Your task to perform on an android device: show emergency info Image 0: 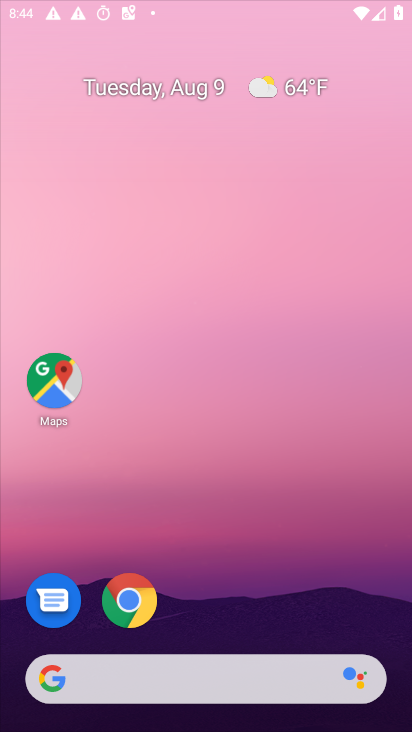
Step 0: press home button
Your task to perform on an android device: show emergency info Image 1: 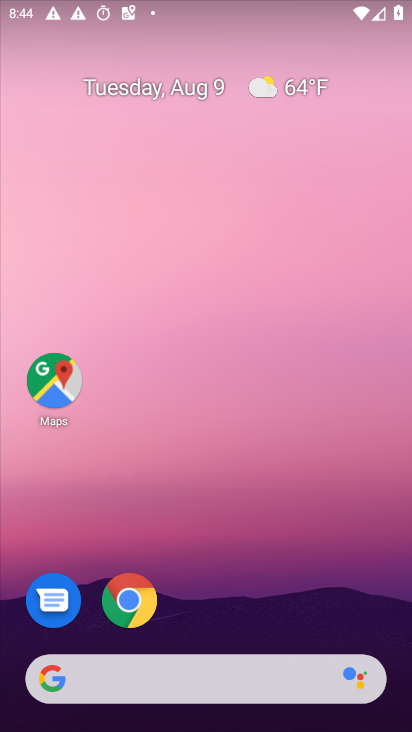
Step 1: drag from (250, 635) to (319, 138)
Your task to perform on an android device: show emergency info Image 2: 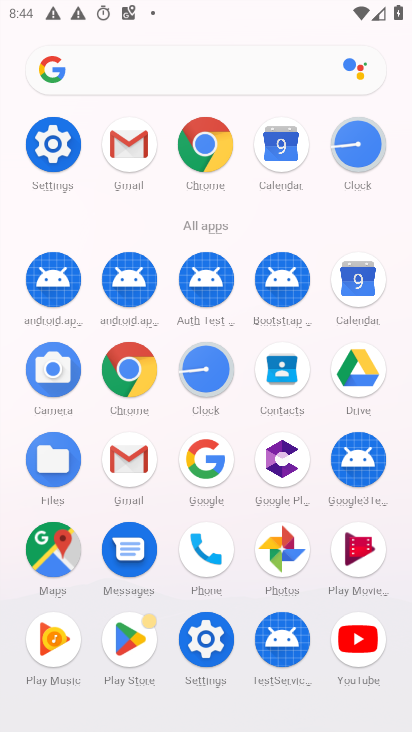
Step 2: click (54, 153)
Your task to perform on an android device: show emergency info Image 3: 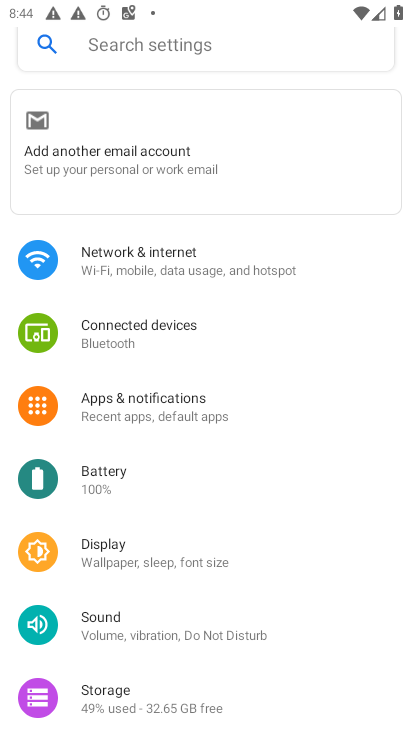
Step 3: drag from (274, 692) to (256, 128)
Your task to perform on an android device: show emergency info Image 4: 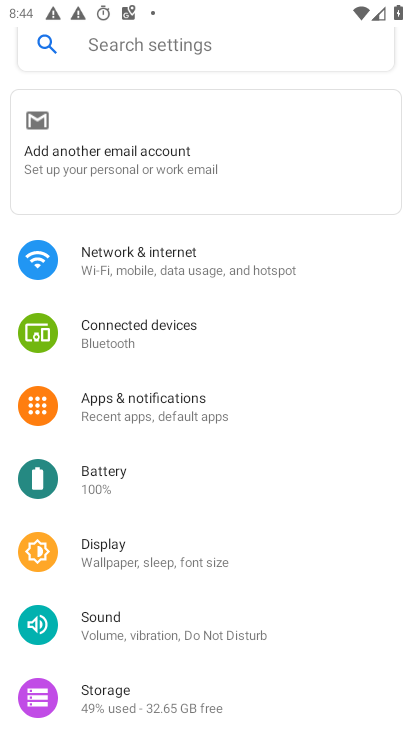
Step 4: drag from (326, 696) to (346, 102)
Your task to perform on an android device: show emergency info Image 5: 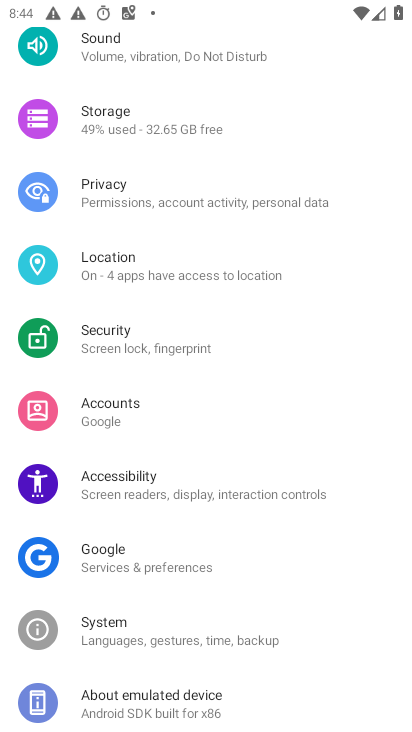
Step 5: click (161, 707)
Your task to perform on an android device: show emergency info Image 6: 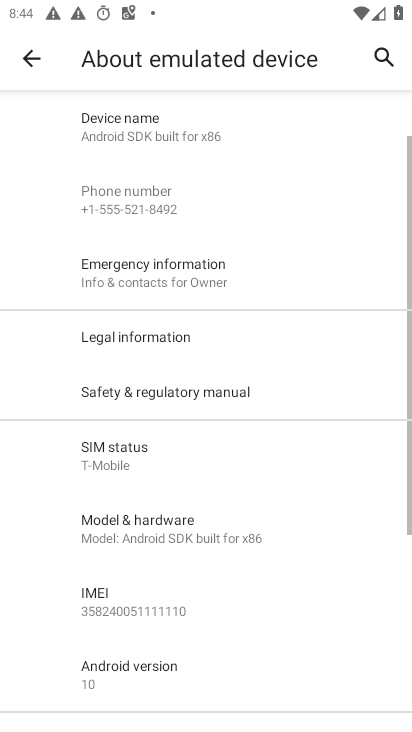
Step 6: click (168, 273)
Your task to perform on an android device: show emergency info Image 7: 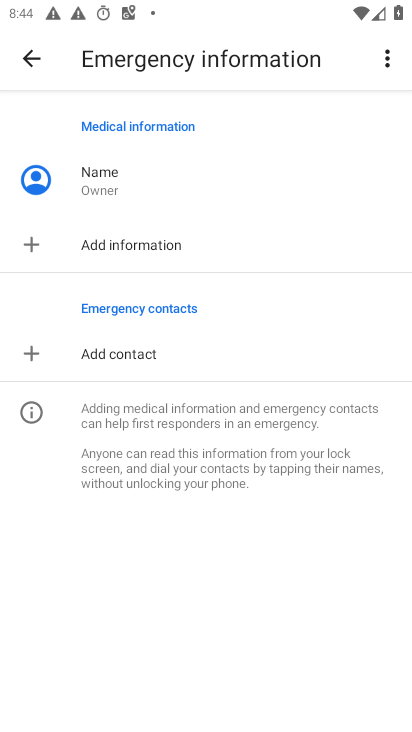
Step 7: task complete